Your task to perform on an android device: turn off notifications in google photos Image 0: 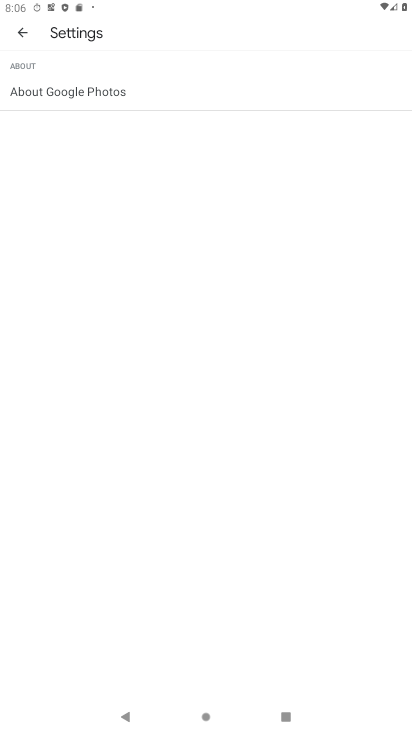
Step 0: press home button
Your task to perform on an android device: turn off notifications in google photos Image 1: 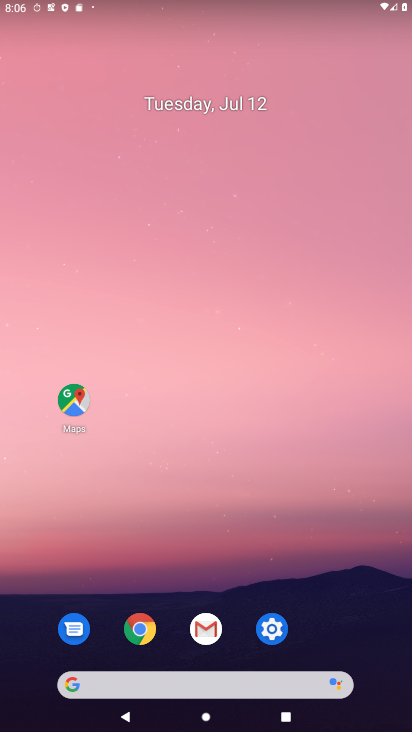
Step 1: drag from (257, 655) to (178, 146)
Your task to perform on an android device: turn off notifications in google photos Image 2: 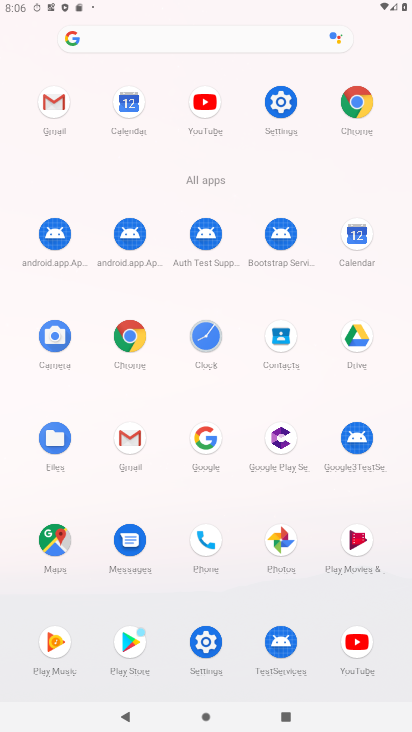
Step 2: click (278, 546)
Your task to perform on an android device: turn off notifications in google photos Image 3: 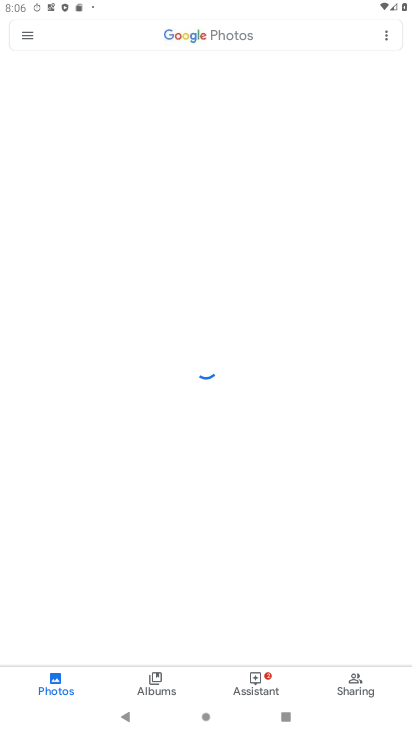
Step 3: click (22, 36)
Your task to perform on an android device: turn off notifications in google photos Image 4: 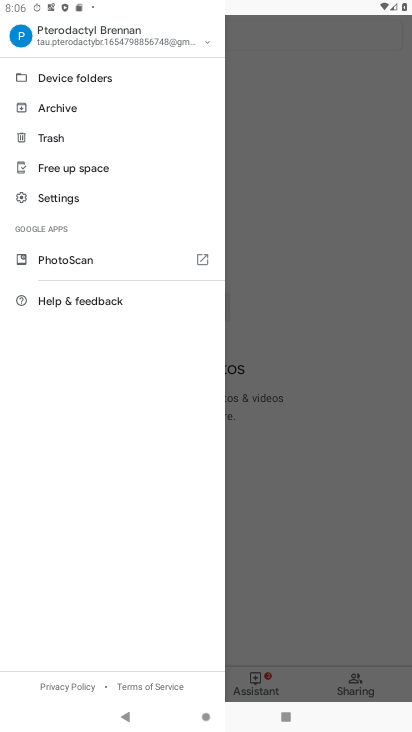
Step 4: click (106, 201)
Your task to perform on an android device: turn off notifications in google photos Image 5: 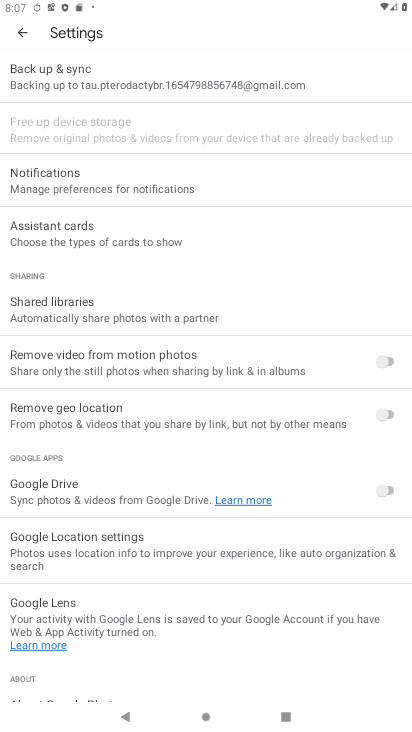
Step 5: click (82, 188)
Your task to perform on an android device: turn off notifications in google photos Image 6: 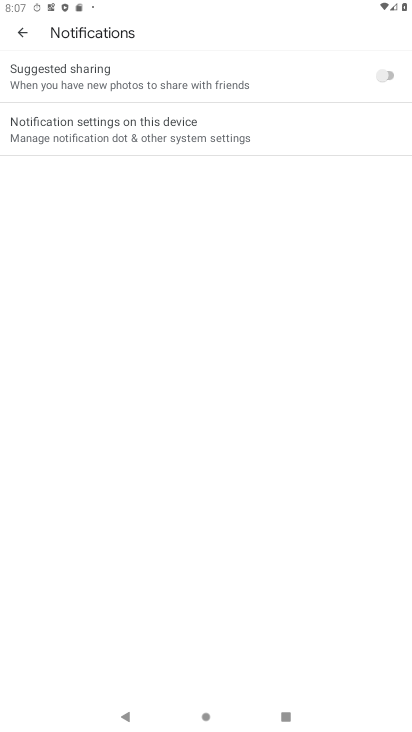
Step 6: click (247, 134)
Your task to perform on an android device: turn off notifications in google photos Image 7: 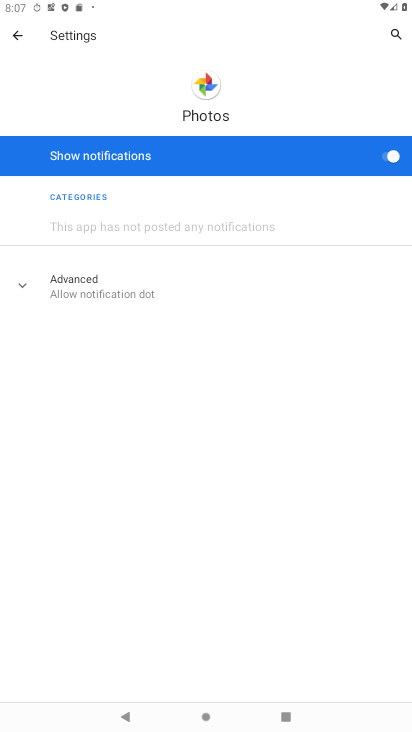
Step 7: click (391, 154)
Your task to perform on an android device: turn off notifications in google photos Image 8: 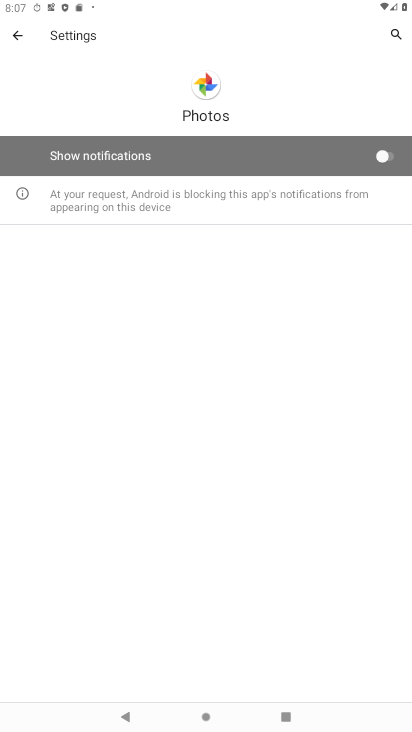
Step 8: task complete